Your task to perform on an android device: Go to Yahoo.com Image 0: 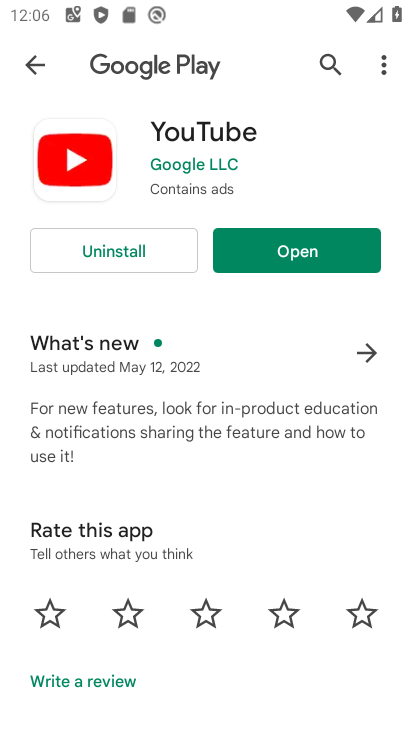
Step 0: press home button
Your task to perform on an android device: Go to Yahoo.com Image 1: 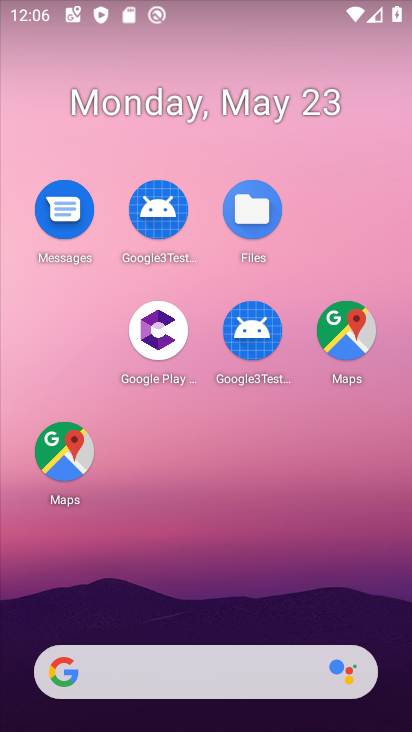
Step 1: drag from (195, 629) to (131, 37)
Your task to perform on an android device: Go to Yahoo.com Image 2: 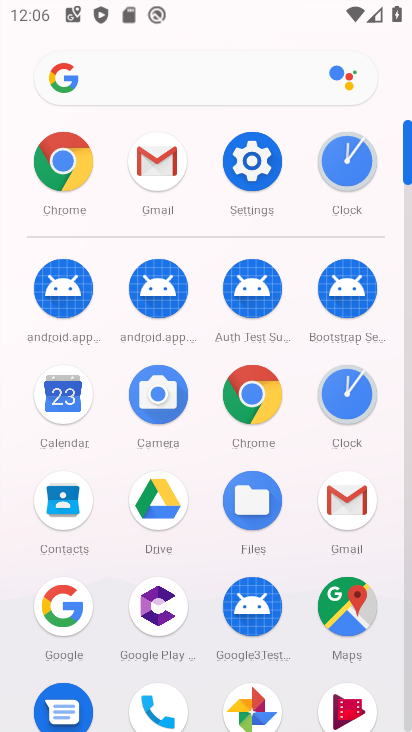
Step 2: click (82, 170)
Your task to perform on an android device: Go to Yahoo.com Image 3: 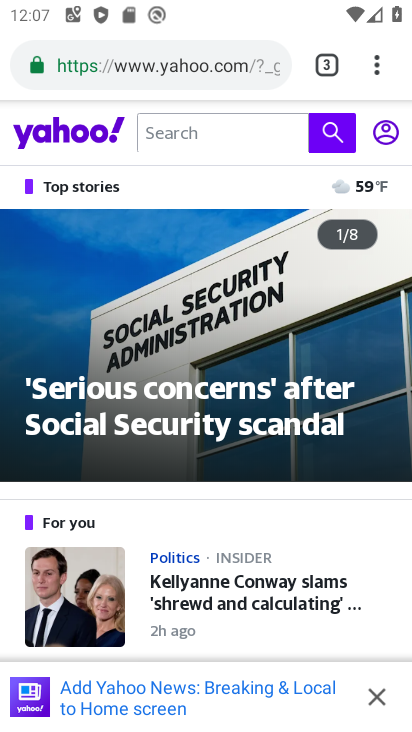
Step 3: task complete